Your task to perform on an android device: toggle priority inbox in the gmail app Image 0: 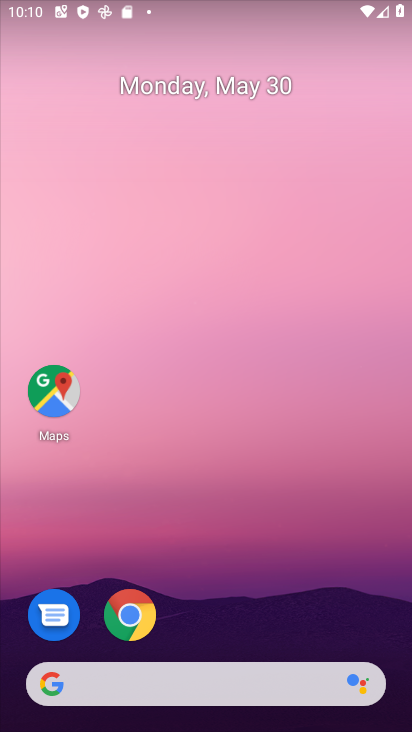
Step 0: drag from (283, 586) to (236, 72)
Your task to perform on an android device: toggle priority inbox in the gmail app Image 1: 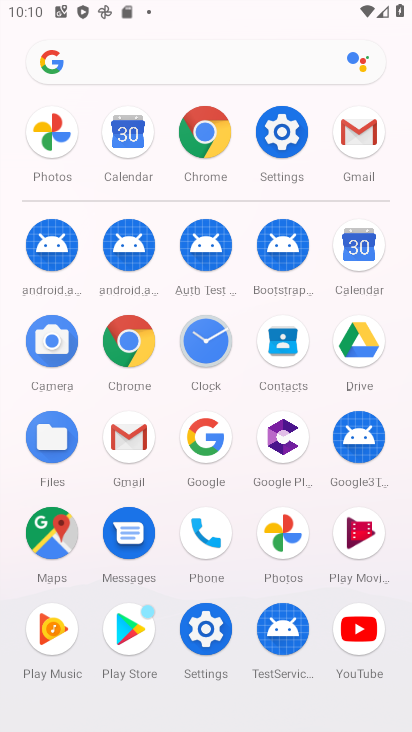
Step 1: click (121, 430)
Your task to perform on an android device: toggle priority inbox in the gmail app Image 2: 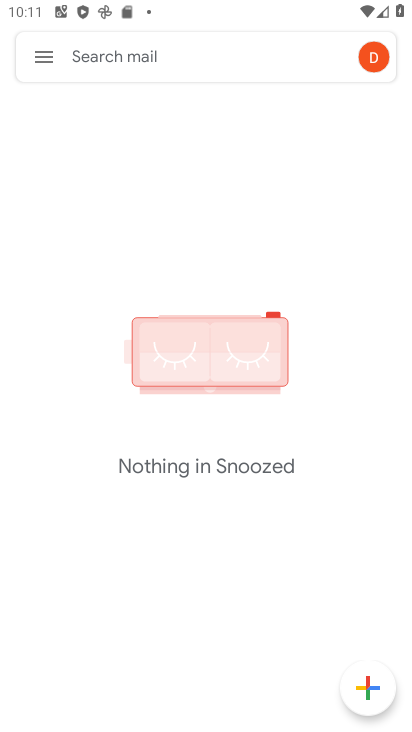
Step 2: click (42, 55)
Your task to perform on an android device: toggle priority inbox in the gmail app Image 3: 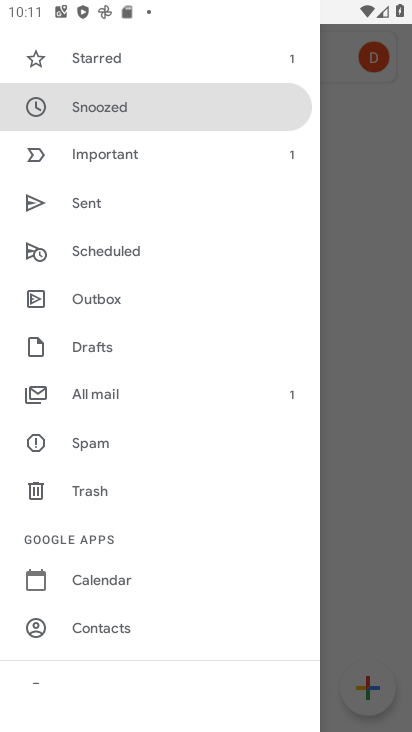
Step 3: drag from (176, 603) to (184, 265)
Your task to perform on an android device: toggle priority inbox in the gmail app Image 4: 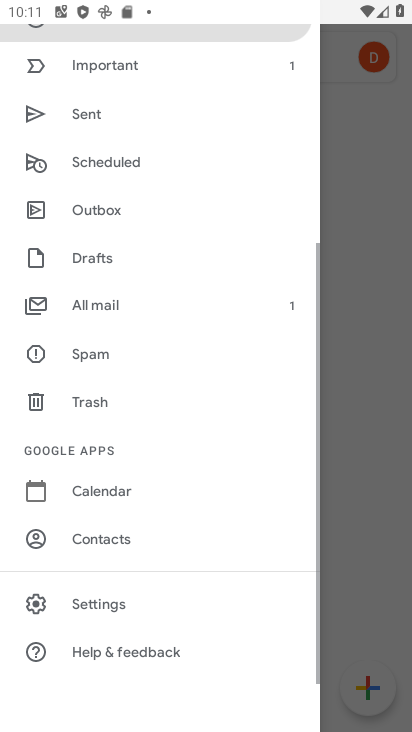
Step 4: click (107, 607)
Your task to perform on an android device: toggle priority inbox in the gmail app Image 5: 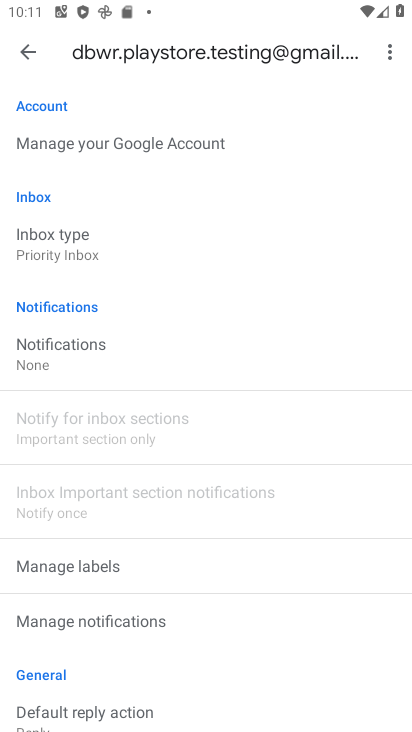
Step 5: click (91, 249)
Your task to perform on an android device: toggle priority inbox in the gmail app Image 6: 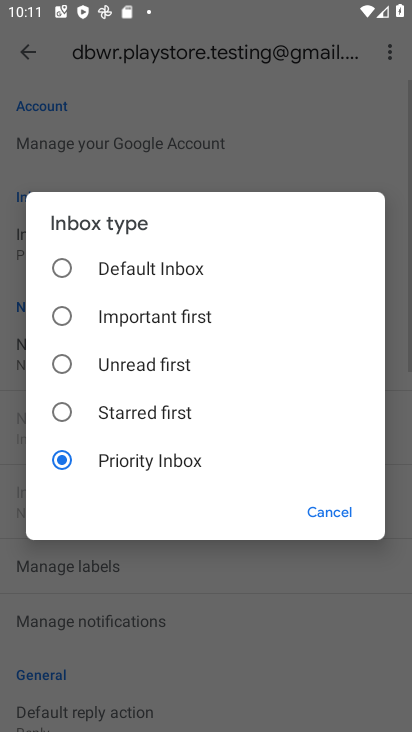
Step 6: click (197, 273)
Your task to perform on an android device: toggle priority inbox in the gmail app Image 7: 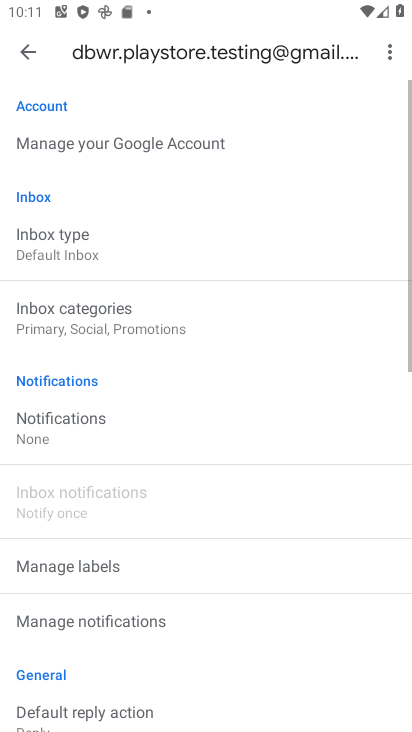
Step 7: task complete